Your task to perform on an android device: install app "The Home Depot" Image 0: 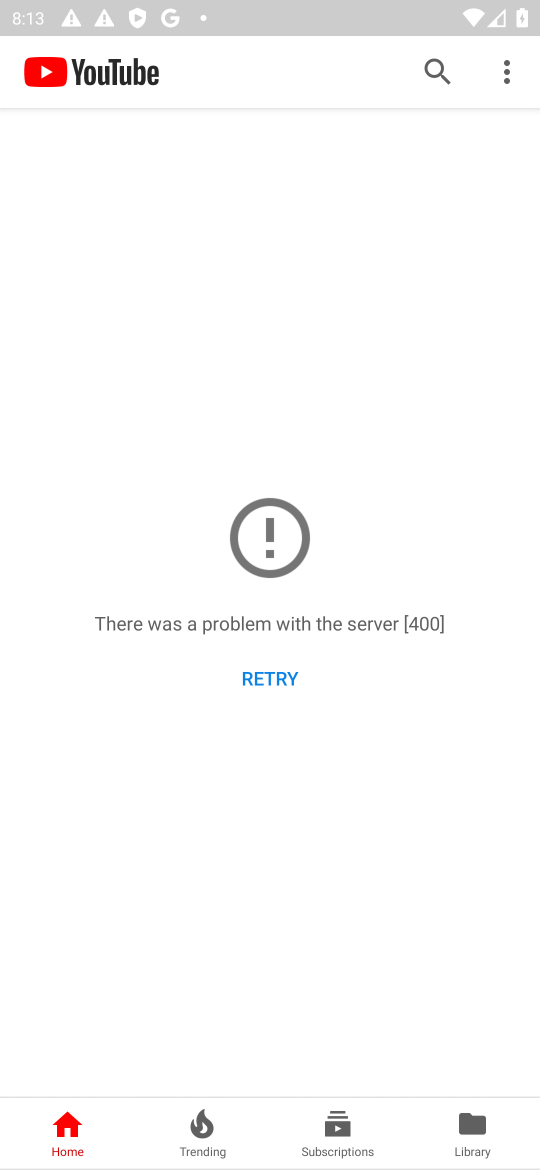
Step 0: press home button
Your task to perform on an android device: install app "The Home Depot" Image 1: 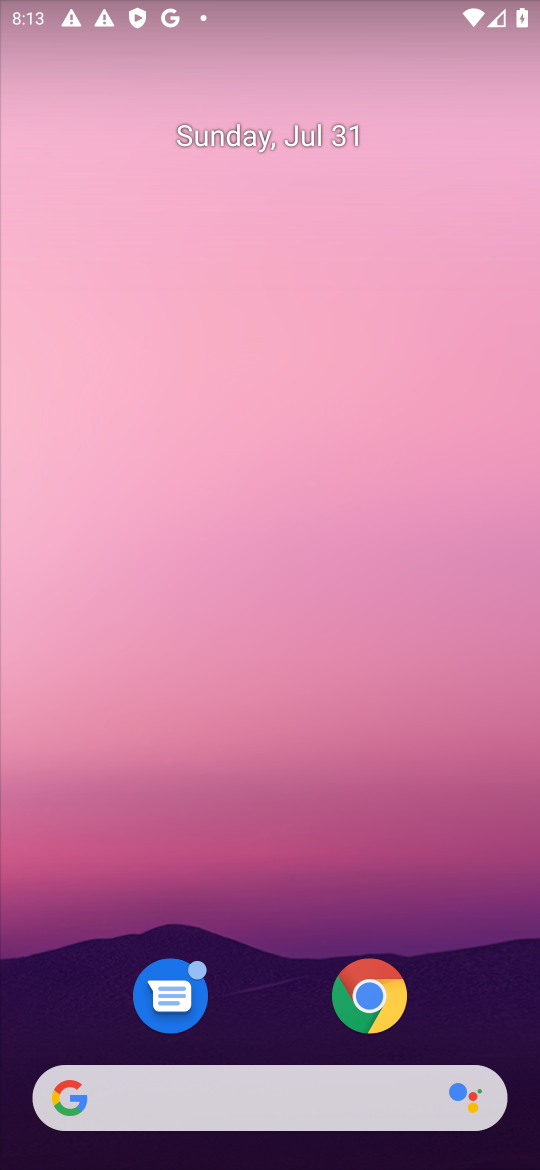
Step 1: drag from (483, 965) to (468, 125)
Your task to perform on an android device: install app "The Home Depot" Image 2: 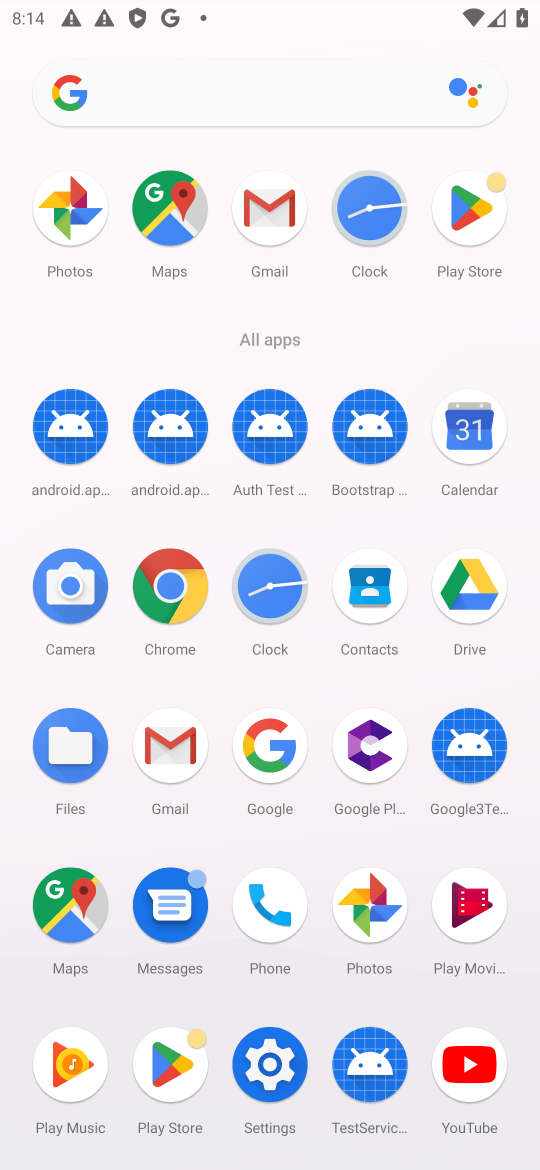
Step 2: click (72, 1054)
Your task to perform on an android device: install app "The Home Depot" Image 3: 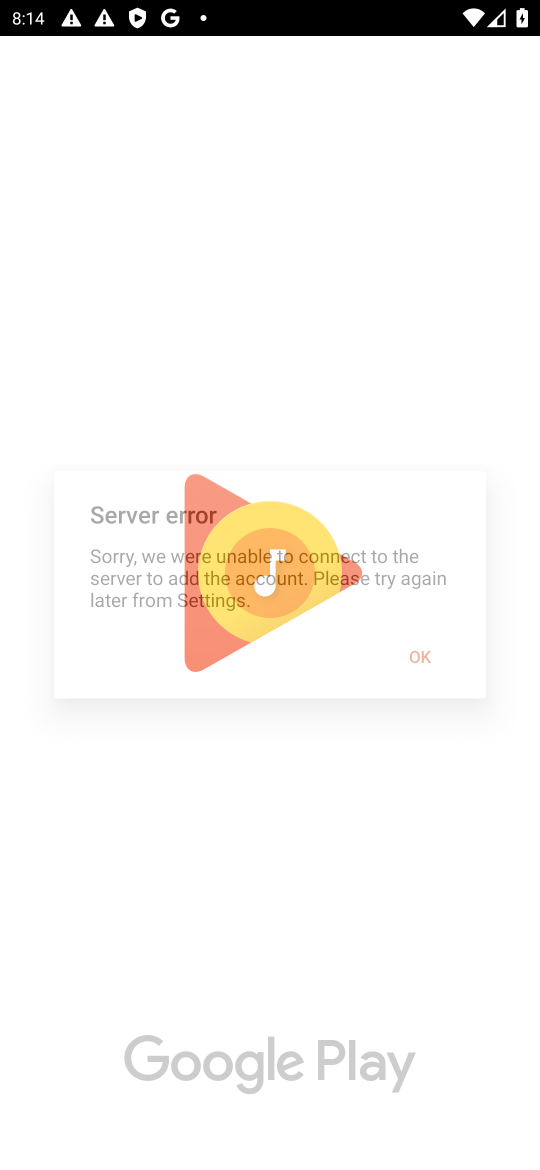
Step 3: press home button
Your task to perform on an android device: install app "The Home Depot" Image 4: 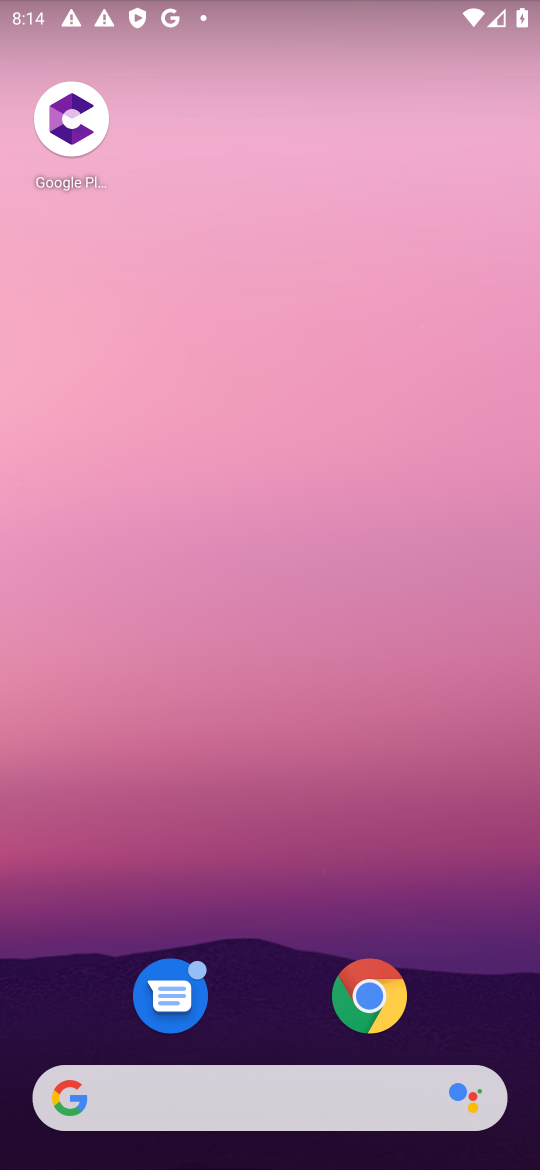
Step 4: drag from (459, 934) to (483, 112)
Your task to perform on an android device: install app "The Home Depot" Image 5: 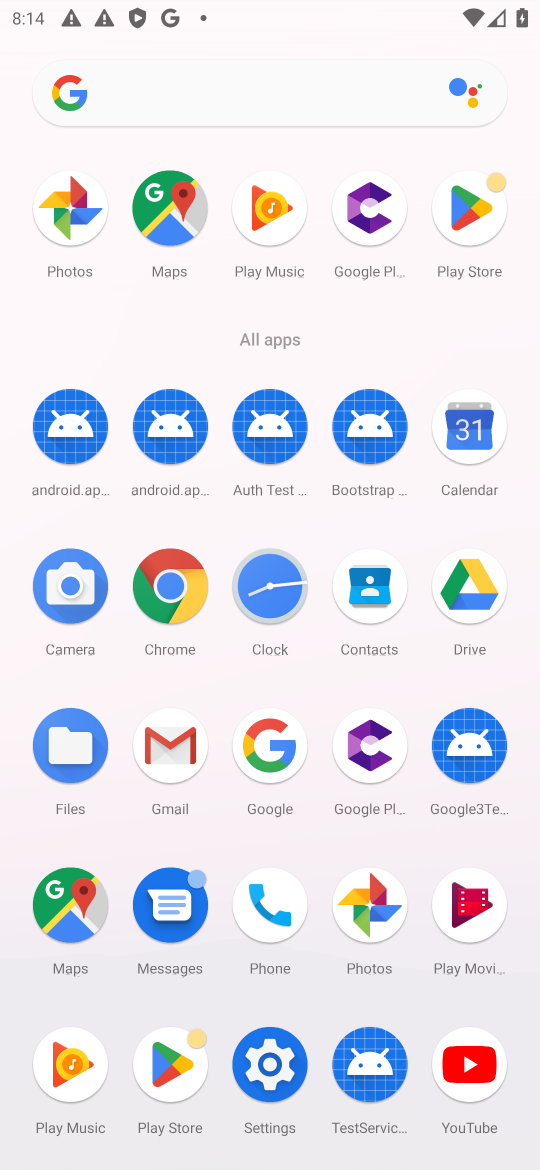
Step 5: click (180, 1067)
Your task to perform on an android device: install app "The Home Depot" Image 6: 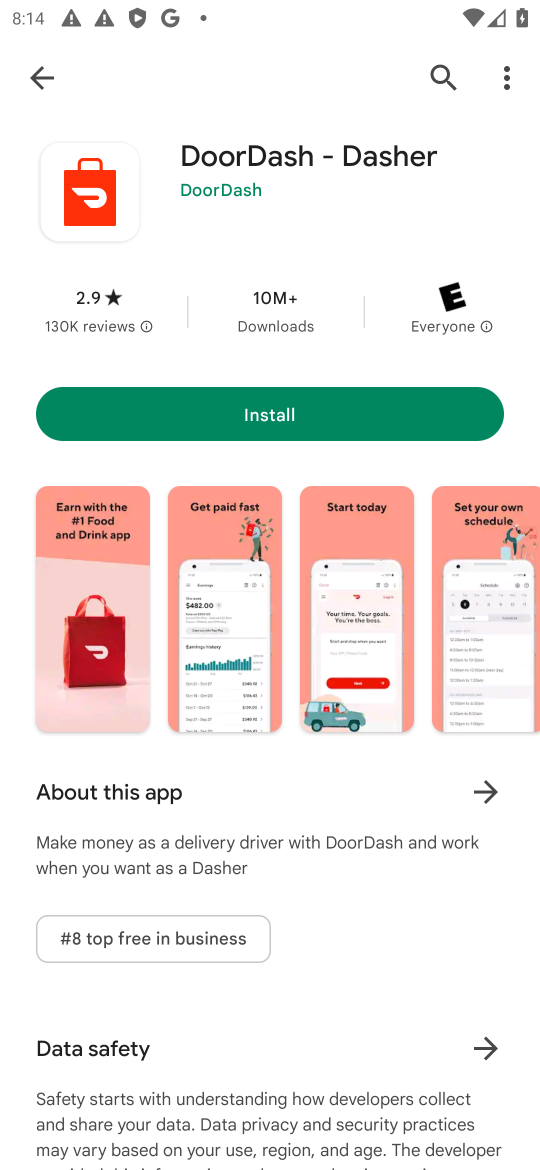
Step 6: press back button
Your task to perform on an android device: install app "The Home Depot" Image 7: 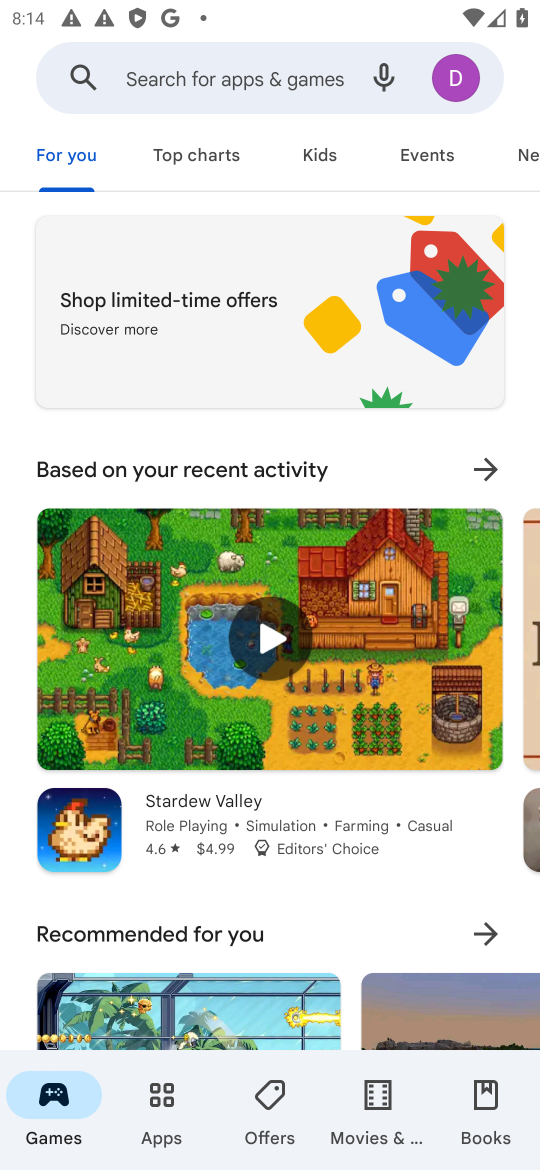
Step 7: click (237, 75)
Your task to perform on an android device: install app "The Home Depot" Image 8: 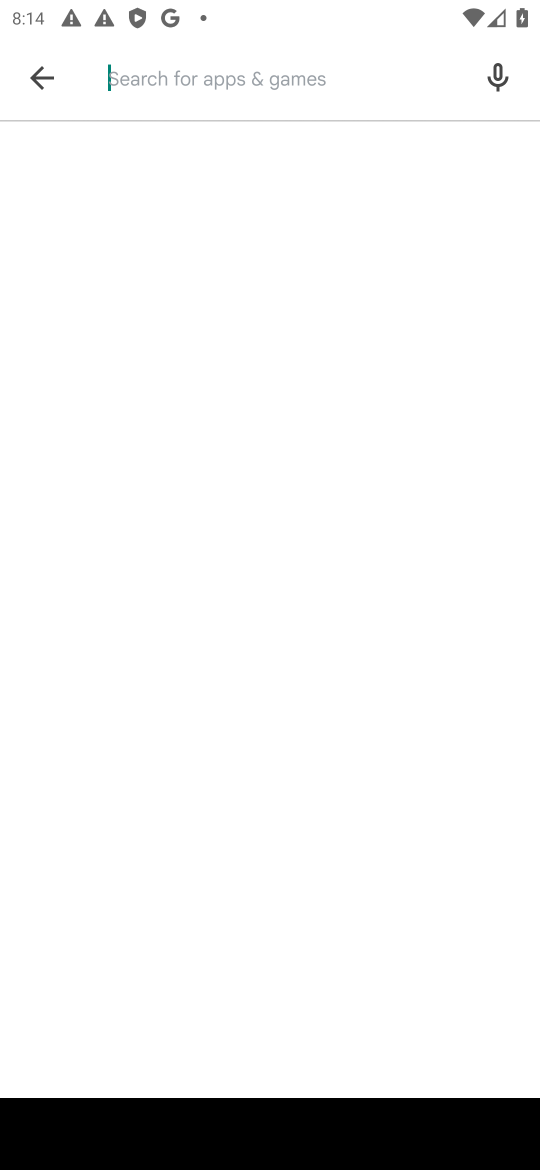
Step 8: type "the home depot"
Your task to perform on an android device: install app "The Home Depot" Image 9: 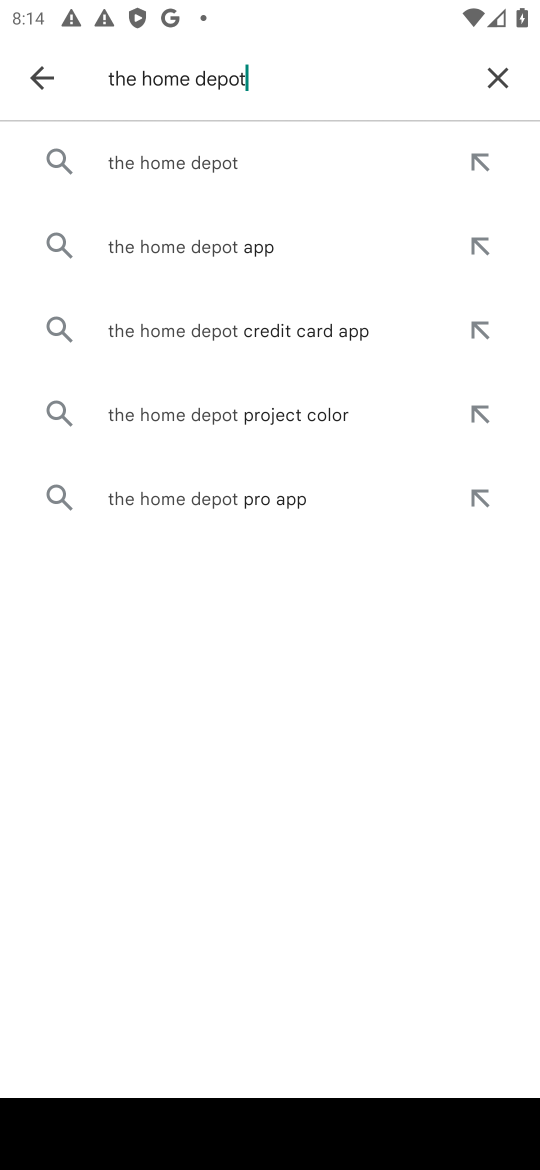
Step 9: click (207, 164)
Your task to perform on an android device: install app "The Home Depot" Image 10: 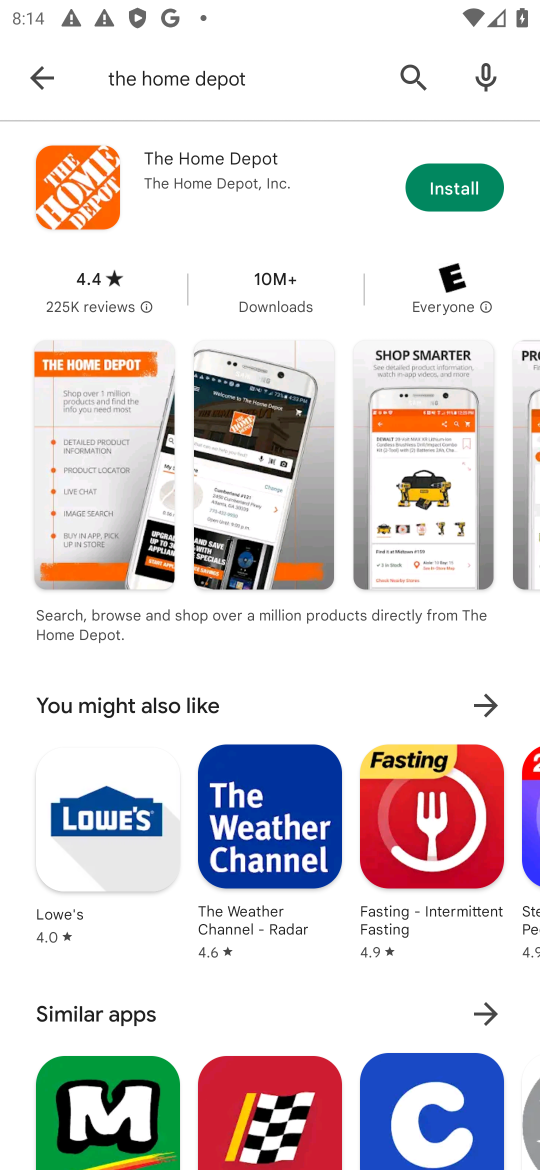
Step 10: click (458, 186)
Your task to perform on an android device: install app "The Home Depot" Image 11: 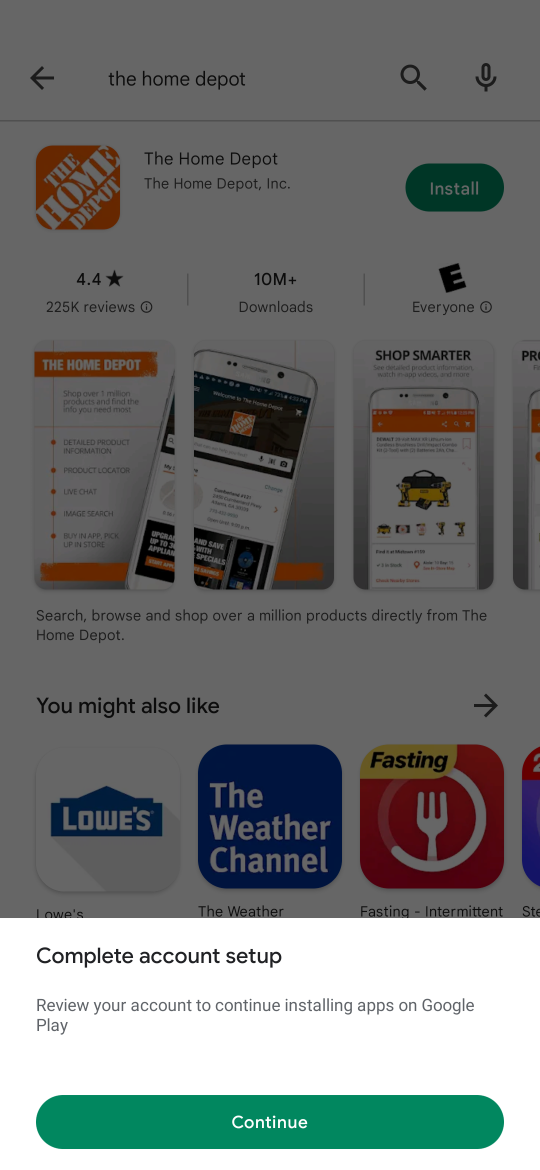
Step 11: click (326, 1130)
Your task to perform on an android device: install app "The Home Depot" Image 12: 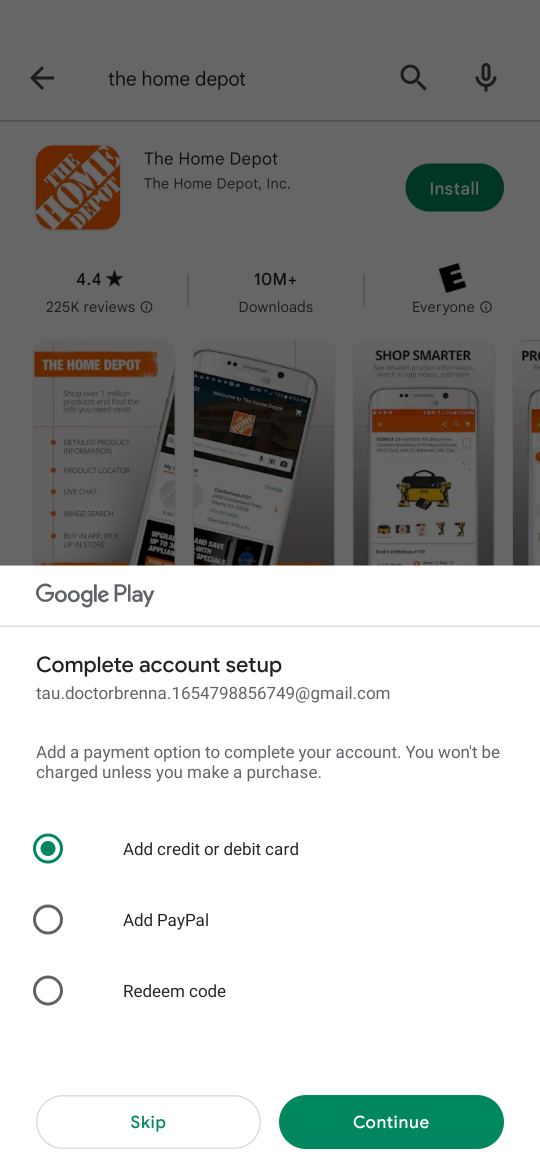
Step 12: click (136, 1120)
Your task to perform on an android device: install app "The Home Depot" Image 13: 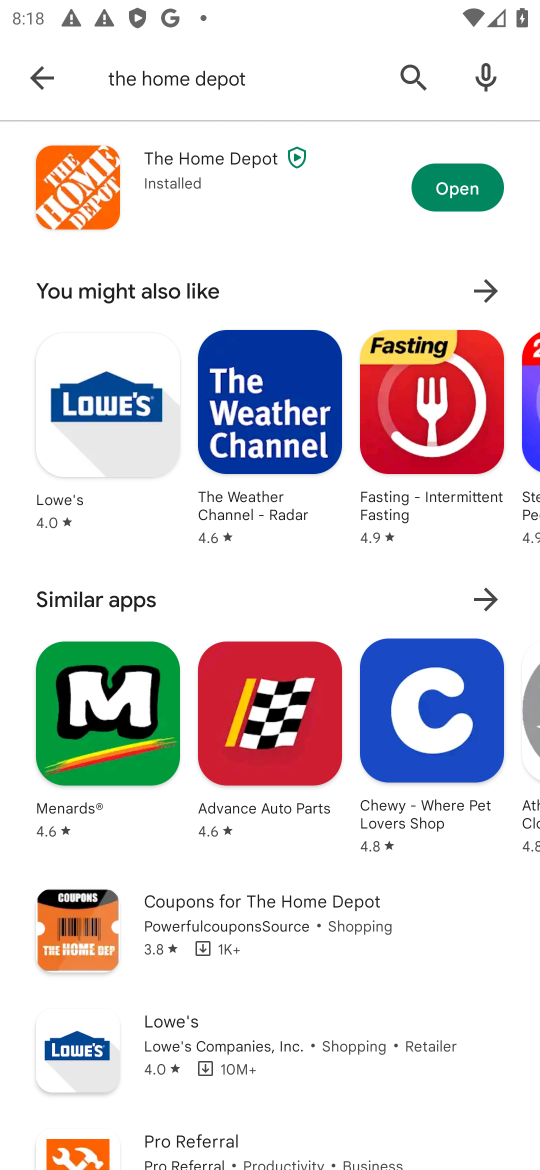
Step 13: task complete